Your task to perform on an android device: turn off location history Image 0: 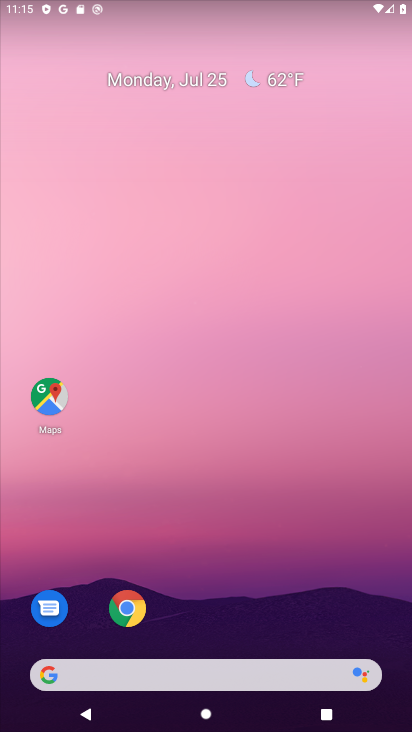
Step 0: drag from (267, 582) to (255, 259)
Your task to perform on an android device: turn off location history Image 1: 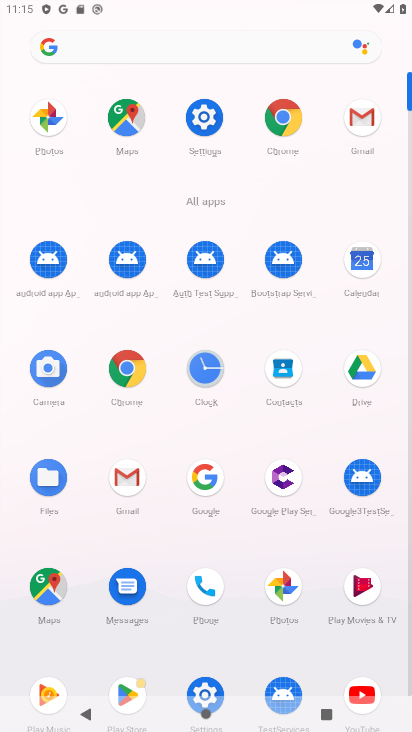
Step 1: click (210, 133)
Your task to perform on an android device: turn off location history Image 2: 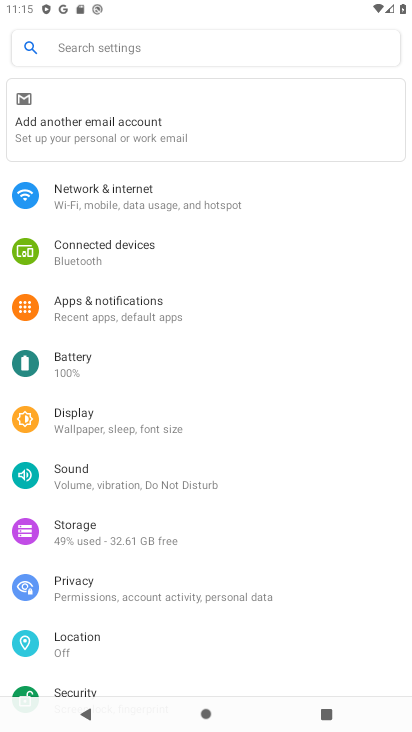
Step 2: click (92, 649)
Your task to perform on an android device: turn off location history Image 3: 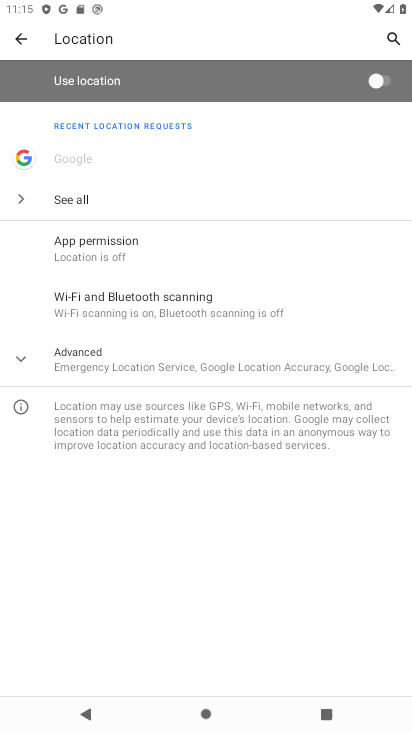
Step 3: task complete